Your task to perform on an android device: remove spam from my inbox in the gmail app Image 0: 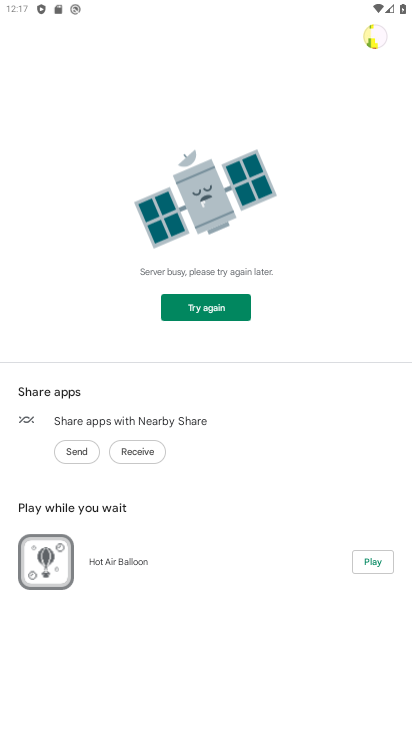
Step 0: press home button
Your task to perform on an android device: remove spam from my inbox in the gmail app Image 1: 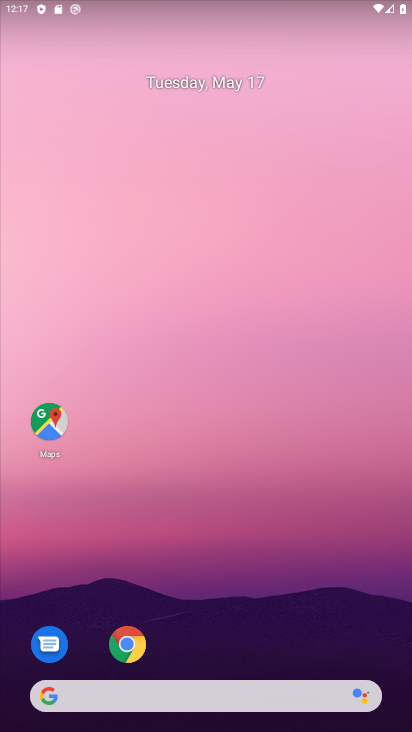
Step 1: drag from (176, 680) to (301, 110)
Your task to perform on an android device: remove spam from my inbox in the gmail app Image 2: 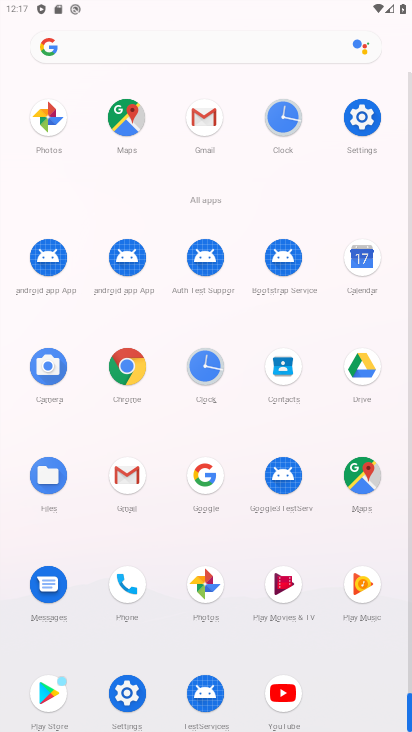
Step 2: drag from (229, 586) to (263, 372)
Your task to perform on an android device: remove spam from my inbox in the gmail app Image 3: 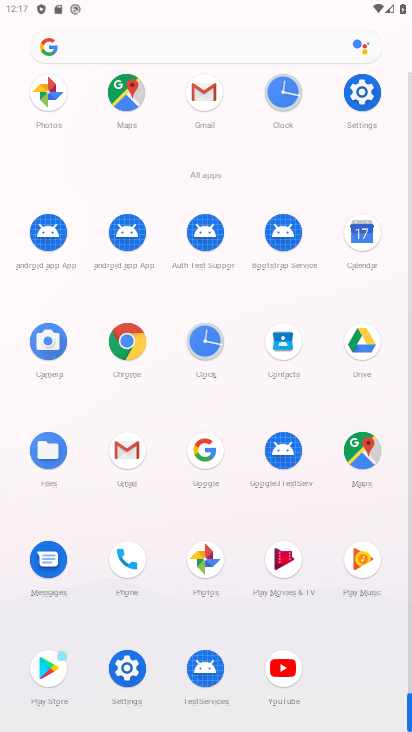
Step 3: click (133, 443)
Your task to perform on an android device: remove spam from my inbox in the gmail app Image 4: 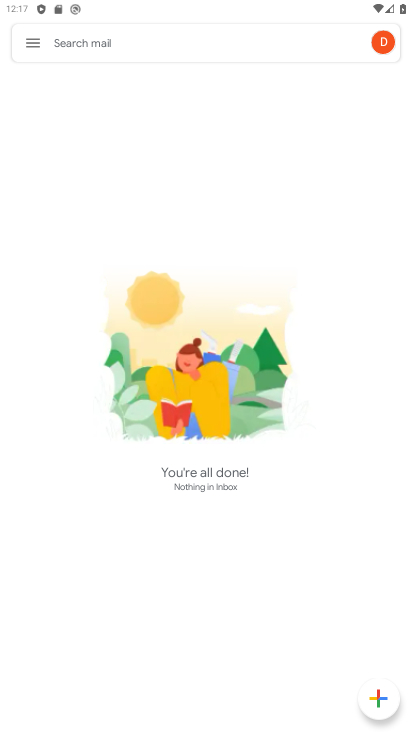
Step 4: click (33, 39)
Your task to perform on an android device: remove spam from my inbox in the gmail app Image 5: 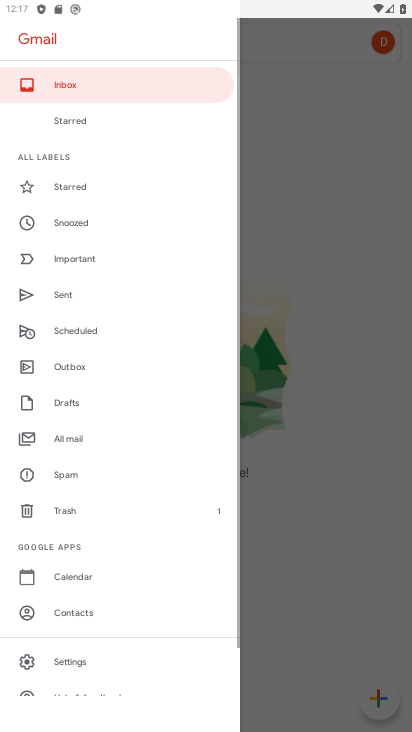
Step 5: click (85, 469)
Your task to perform on an android device: remove spam from my inbox in the gmail app Image 6: 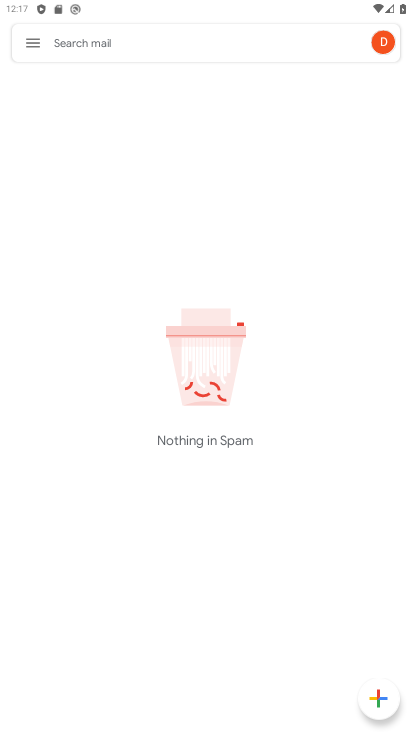
Step 6: task complete